Your task to perform on an android device: Go to privacy settings Image 0: 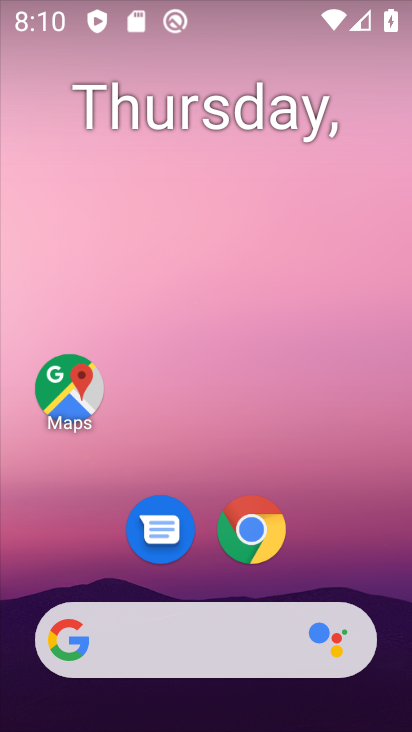
Step 0: press home button
Your task to perform on an android device: Go to privacy settings Image 1: 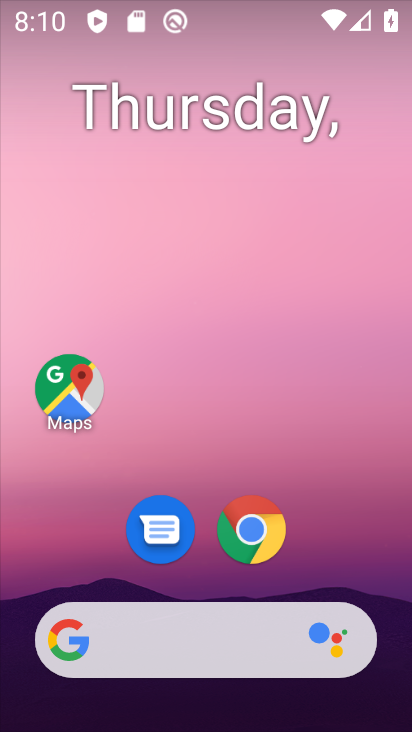
Step 1: drag from (147, 638) to (315, 167)
Your task to perform on an android device: Go to privacy settings Image 2: 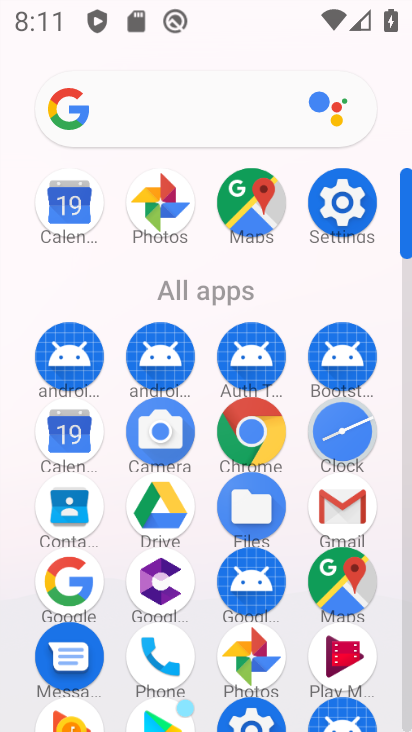
Step 2: click (336, 213)
Your task to perform on an android device: Go to privacy settings Image 3: 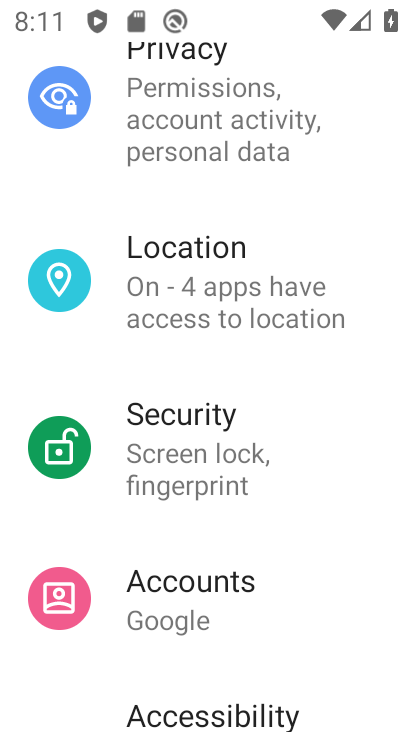
Step 3: click (178, 56)
Your task to perform on an android device: Go to privacy settings Image 4: 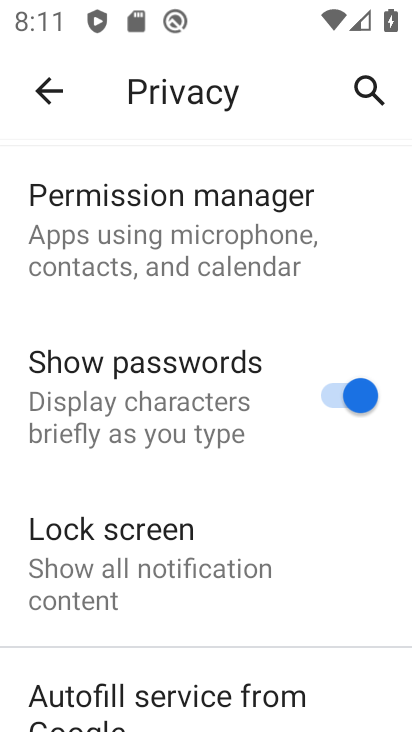
Step 4: task complete